Your task to perform on an android device: Open Google Image 0: 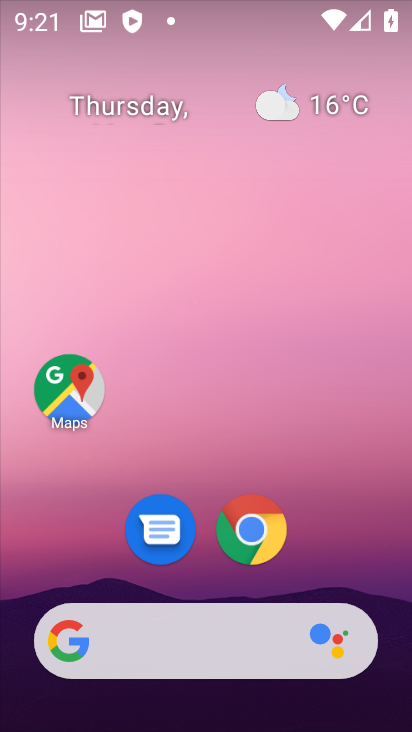
Step 0: drag from (311, 208) to (310, 164)
Your task to perform on an android device: Open Google Image 1: 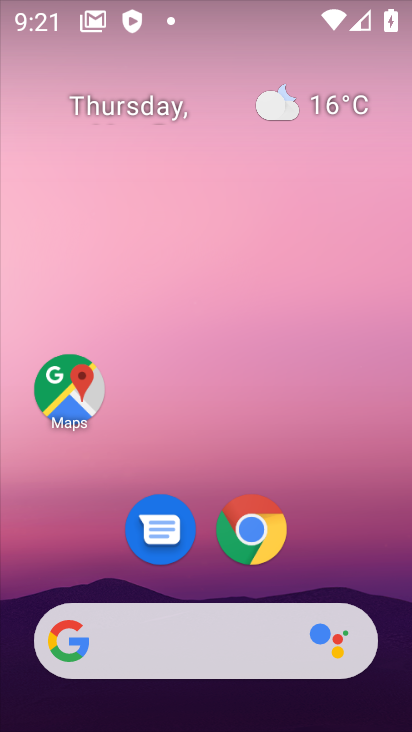
Step 1: drag from (397, 661) to (369, 129)
Your task to perform on an android device: Open Google Image 2: 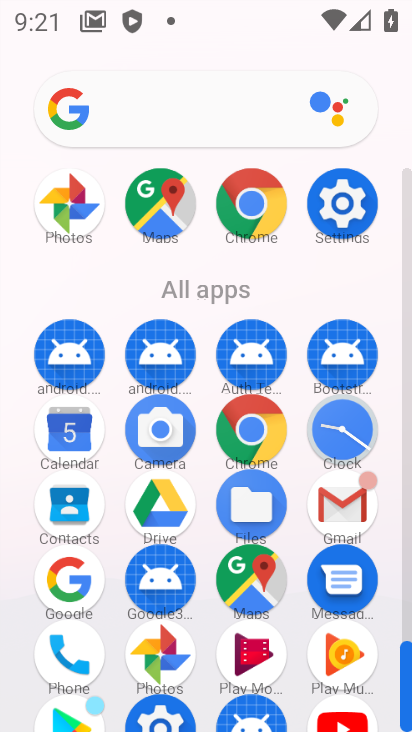
Step 2: click (75, 569)
Your task to perform on an android device: Open Google Image 3: 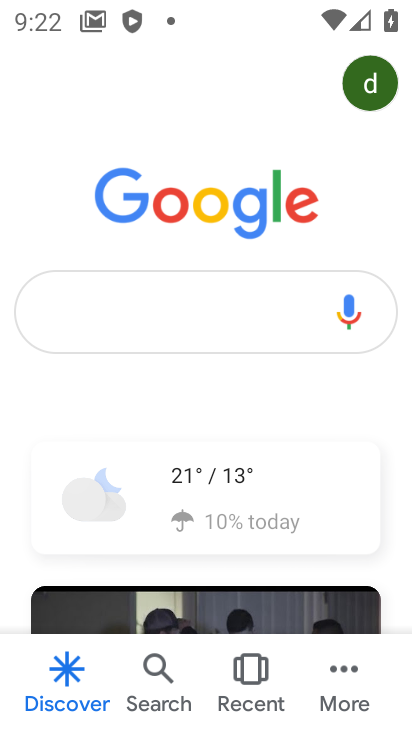
Step 3: task complete